Your task to perform on an android device: add a contact Image 0: 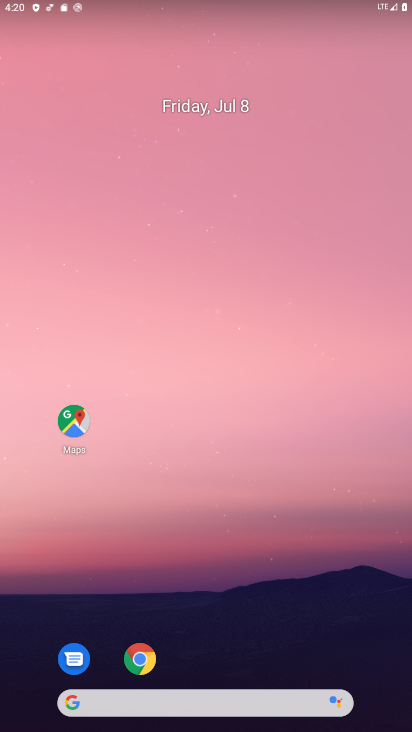
Step 0: drag from (286, 642) to (278, 137)
Your task to perform on an android device: add a contact Image 1: 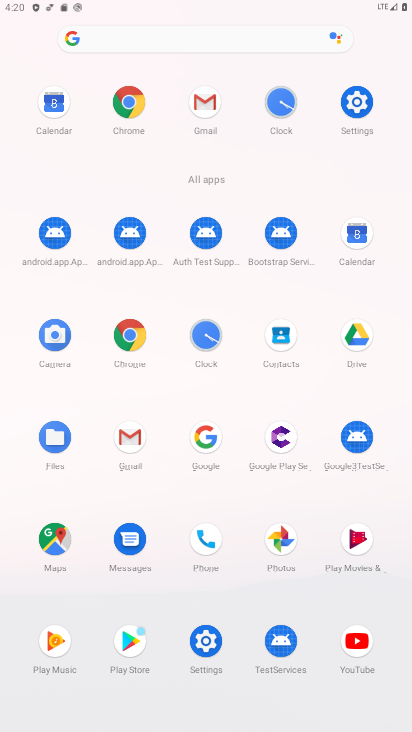
Step 1: click (266, 341)
Your task to perform on an android device: add a contact Image 2: 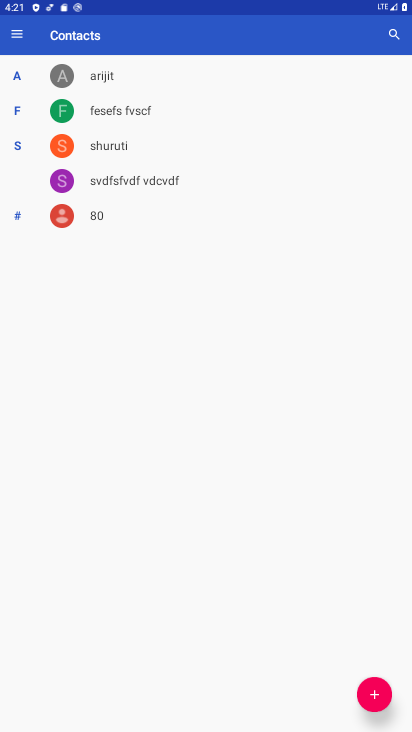
Step 2: click (377, 698)
Your task to perform on an android device: add a contact Image 3: 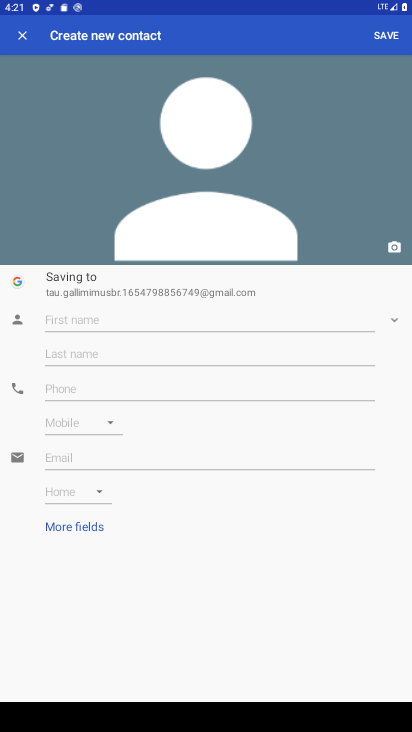
Step 3: click (320, 316)
Your task to perform on an android device: add a contact Image 4: 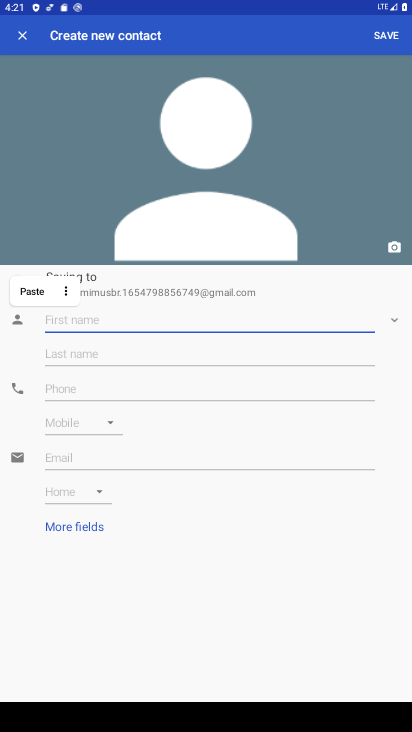
Step 4: type "soniya"
Your task to perform on an android device: add a contact Image 5: 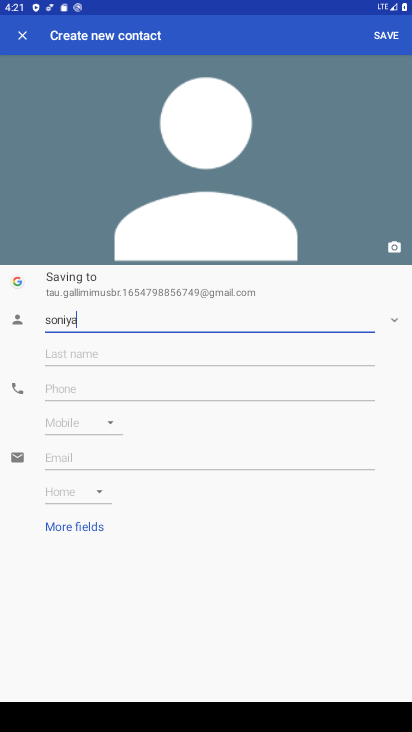
Step 5: click (250, 386)
Your task to perform on an android device: add a contact Image 6: 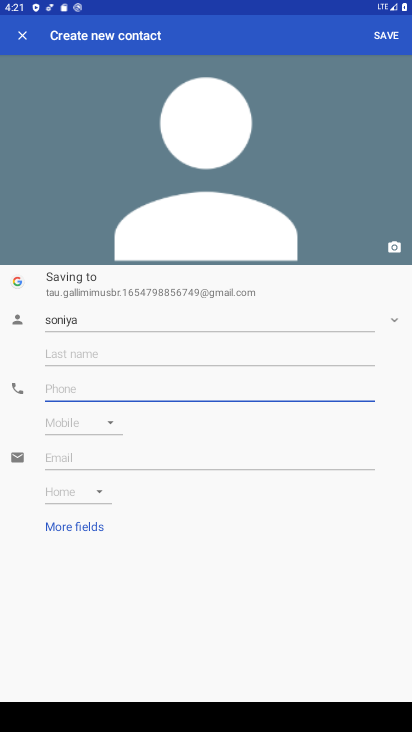
Step 6: type "98330011"
Your task to perform on an android device: add a contact Image 7: 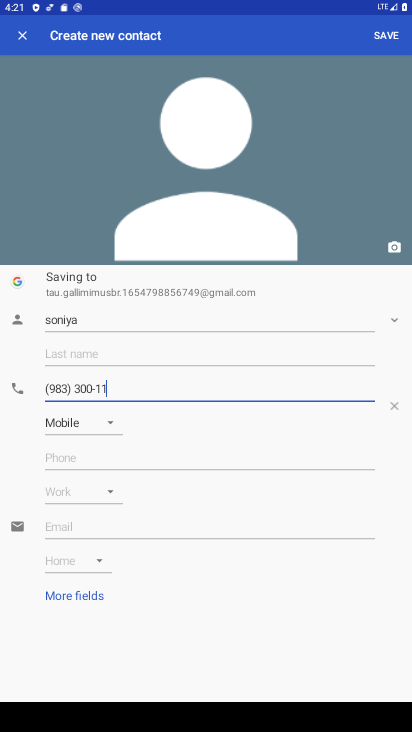
Step 7: click (381, 30)
Your task to perform on an android device: add a contact Image 8: 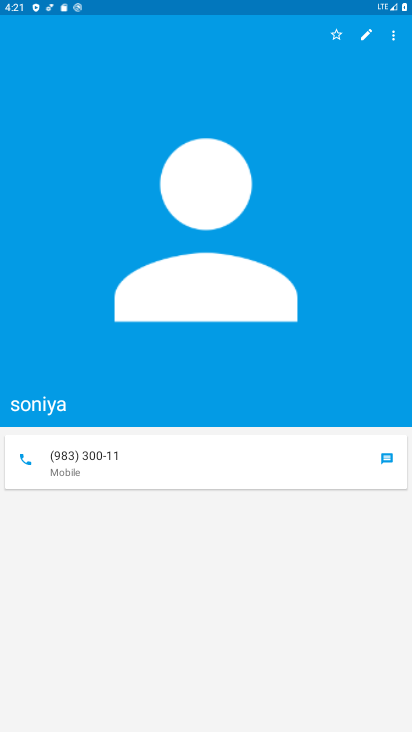
Step 8: task complete